Your task to perform on an android device: Go to accessibility settings Image 0: 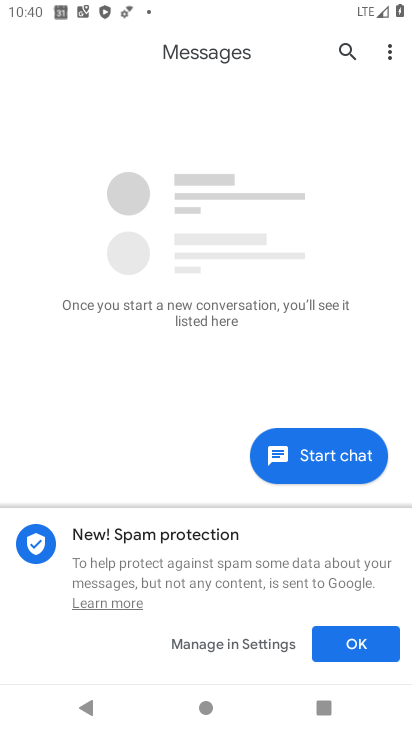
Step 0: press home button
Your task to perform on an android device: Go to accessibility settings Image 1: 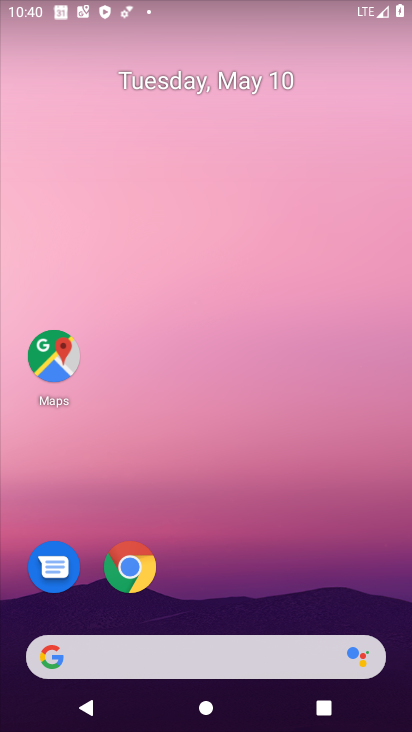
Step 1: drag from (22, 633) to (164, 162)
Your task to perform on an android device: Go to accessibility settings Image 2: 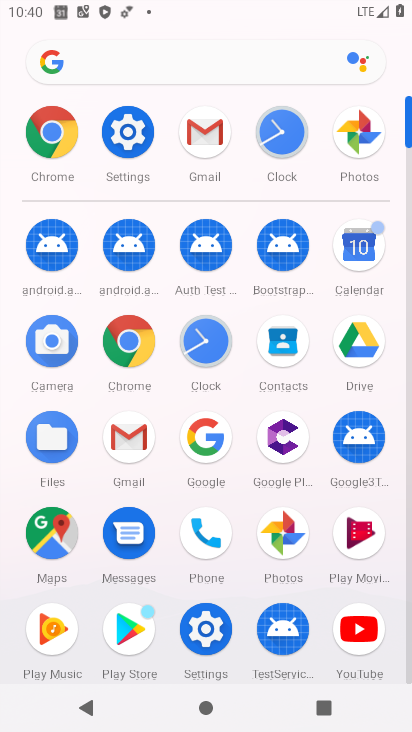
Step 2: click (193, 626)
Your task to perform on an android device: Go to accessibility settings Image 3: 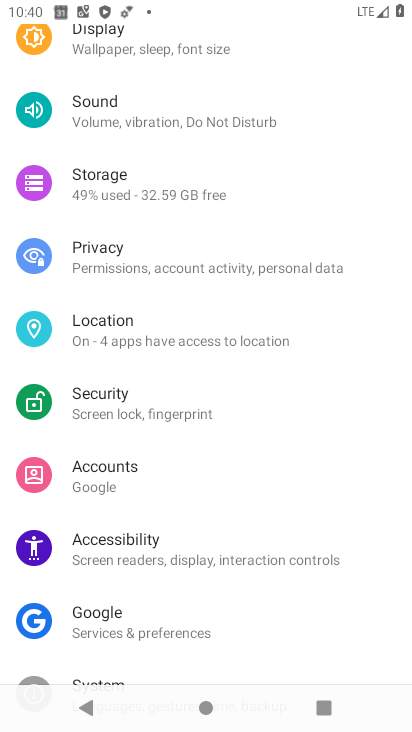
Step 3: click (166, 536)
Your task to perform on an android device: Go to accessibility settings Image 4: 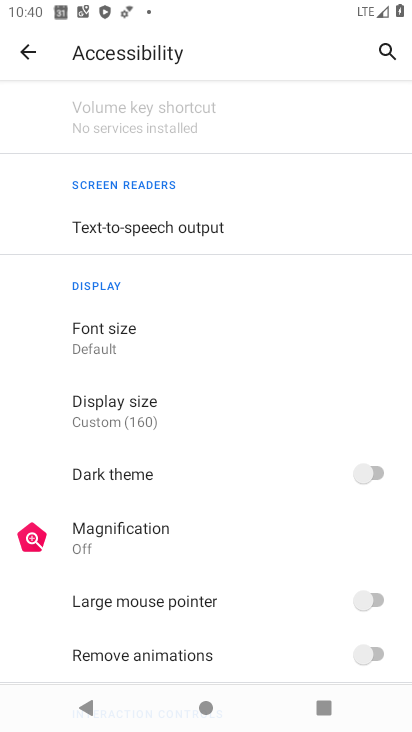
Step 4: task complete